Your task to perform on an android device: allow notifications from all sites in the chrome app Image 0: 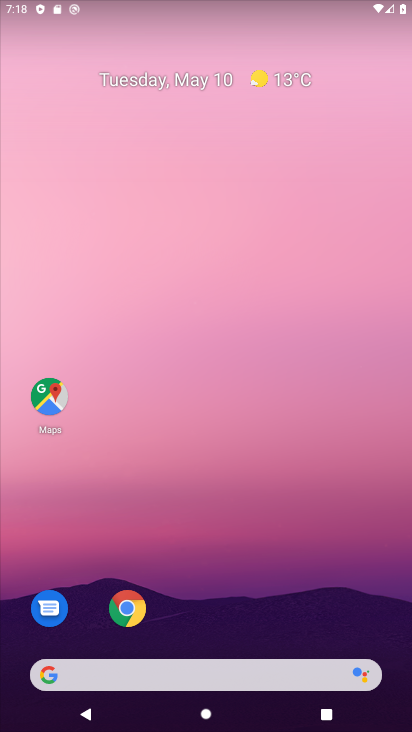
Step 0: drag from (222, 599) to (240, 157)
Your task to perform on an android device: allow notifications from all sites in the chrome app Image 1: 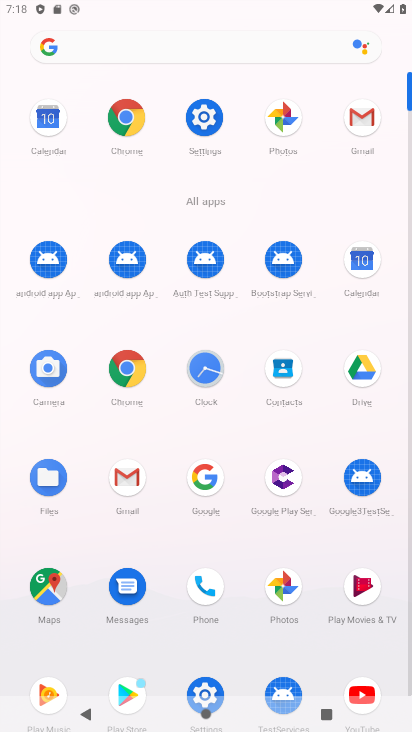
Step 1: click (129, 144)
Your task to perform on an android device: allow notifications from all sites in the chrome app Image 2: 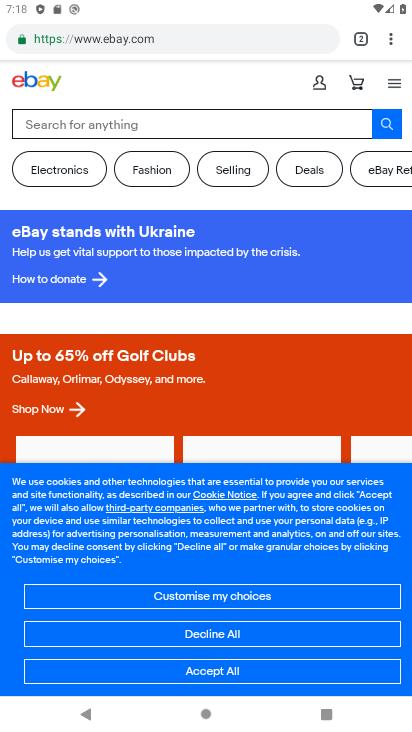
Step 2: click (395, 34)
Your task to perform on an android device: allow notifications from all sites in the chrome app Image 3: 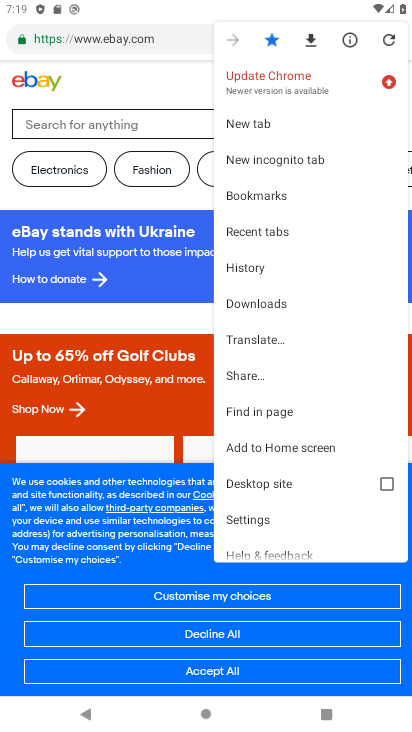
Step 3: click (257, 517)
Your task to perform on an android device: allow notifications from all sites in the chrome app Image 4: 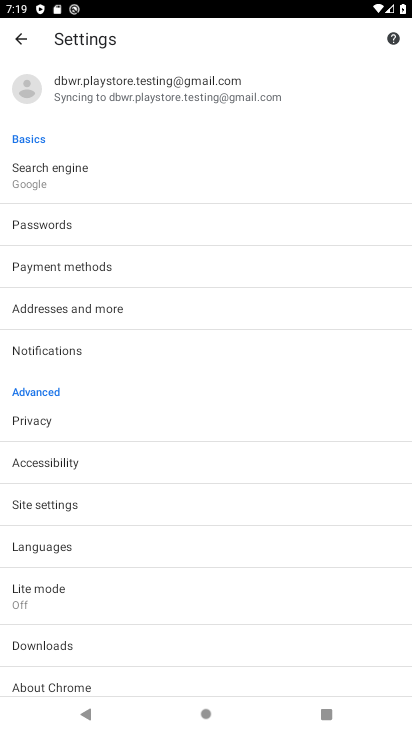
Step 4: click (43, 508)
Your task to perform on an android device: allow notifications from all sites in the chrome app Image 5: 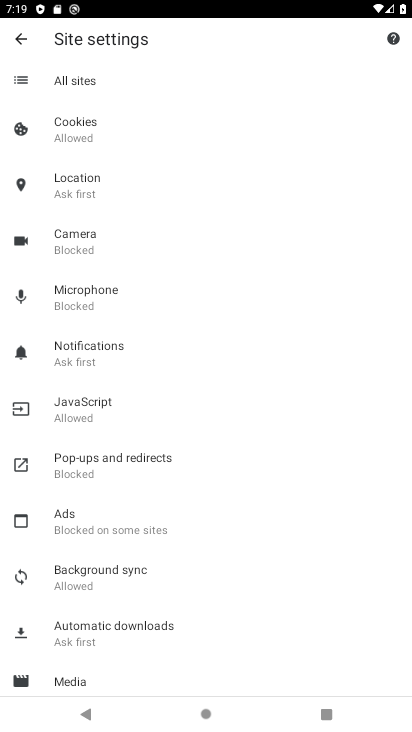
Step 5: click (87, 359)
Your task to perform on an android device: allow notifications from all sites in the chrome app Image 6: 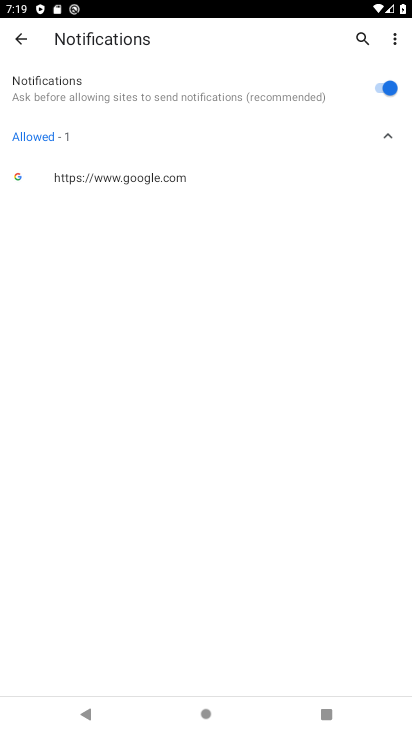
Step 6: task complete